Your task to perform on an android device: delete location history Image 0: 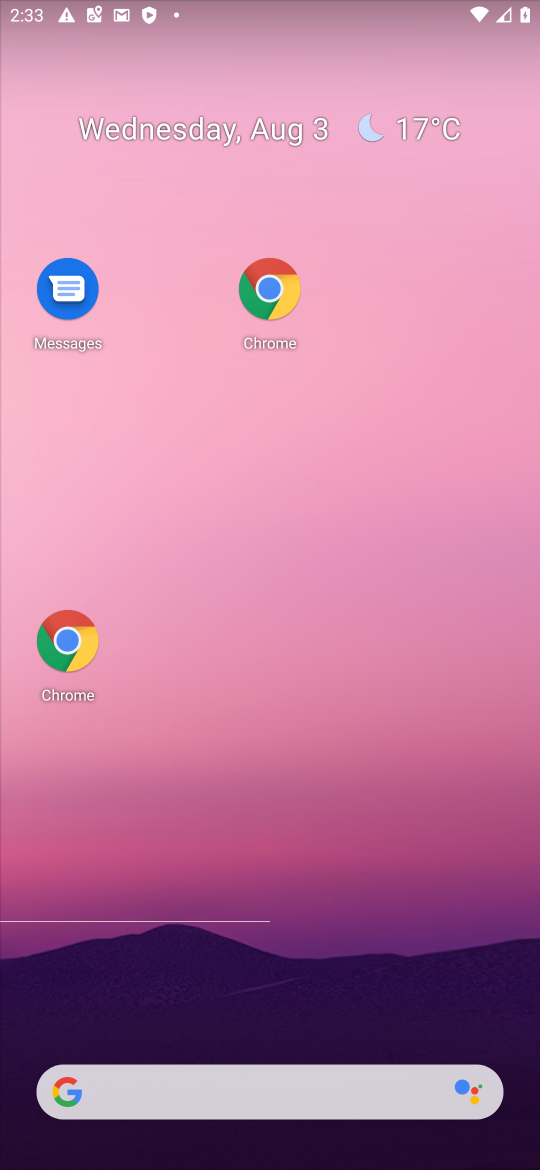
Step 0: drag from (374, 991) to (274, 153)
Your task to perform on an android device: delete location history Image 1: 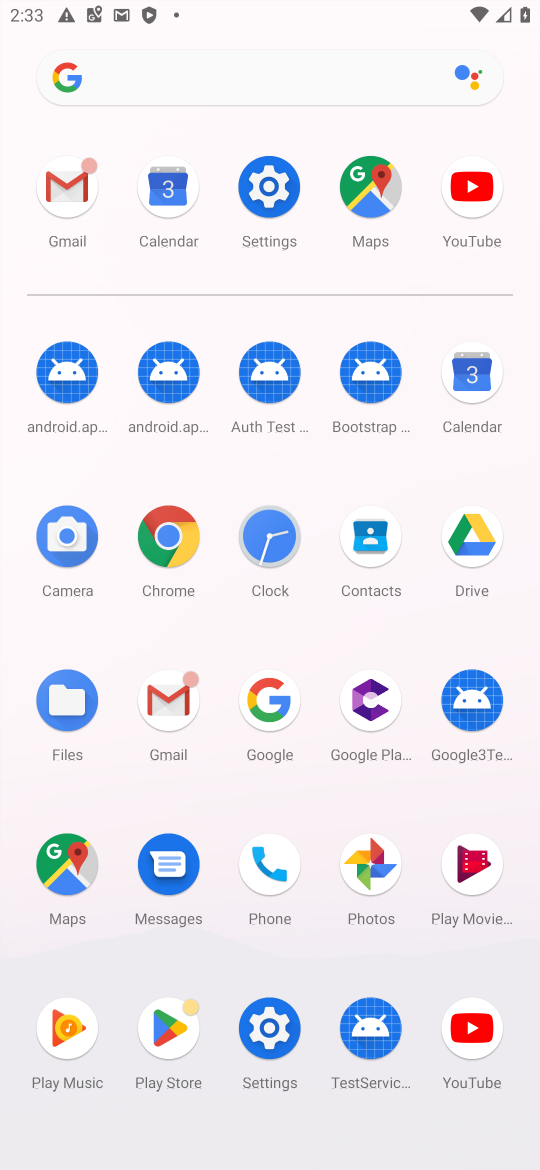
Step 1: click (263, 1008)
Your task to perform on an android device: delete location history Image 2: 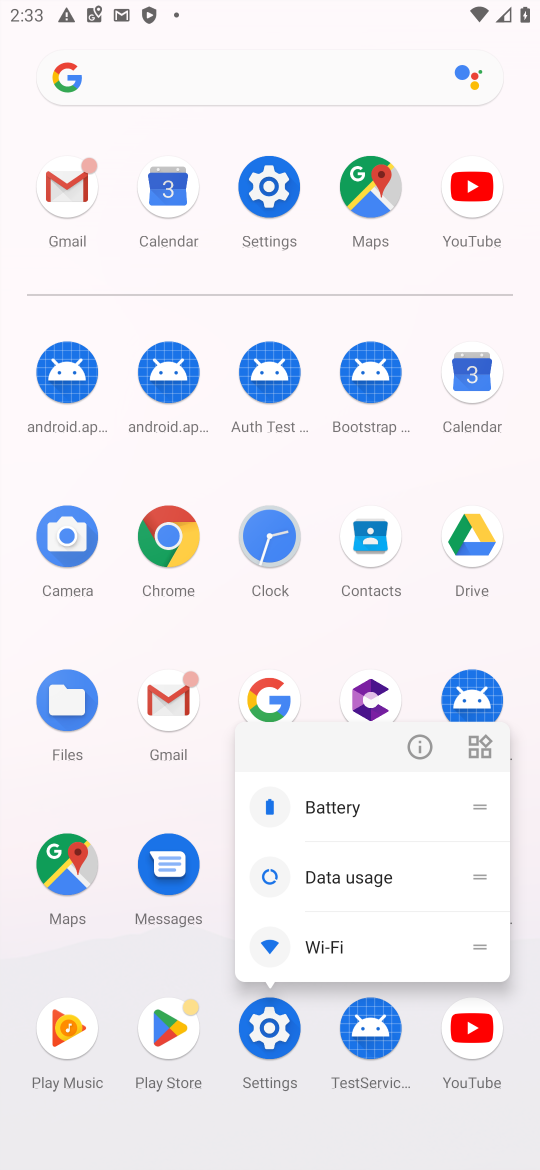
Step 2: click (271, 1029)
Your task to perform on an android device: delete location history Image 3: 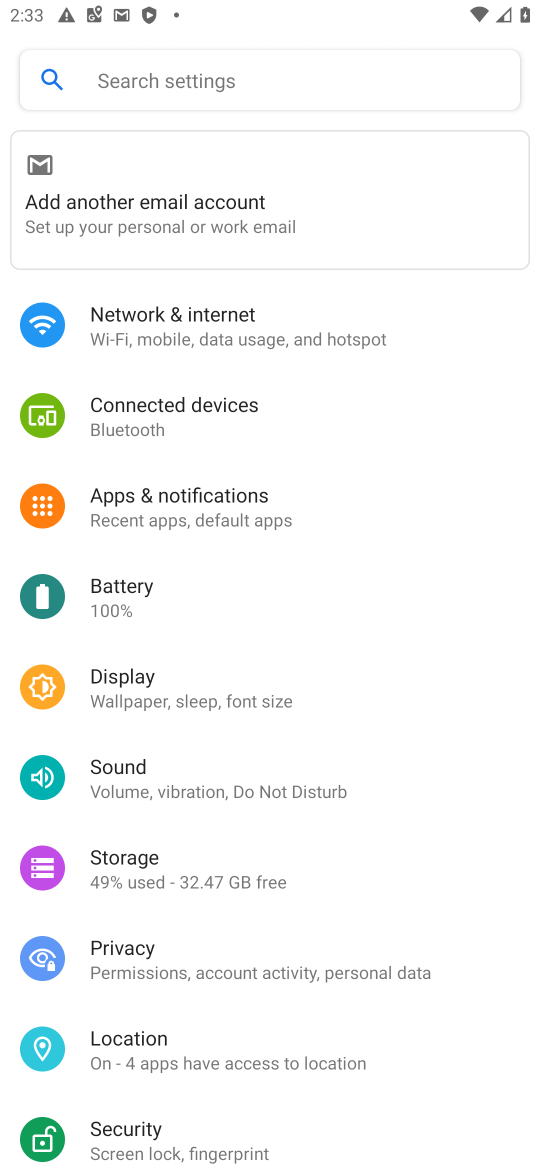
Step 3: click (271, 1029)
Your task to perform on an android device: delete location history Image 4: 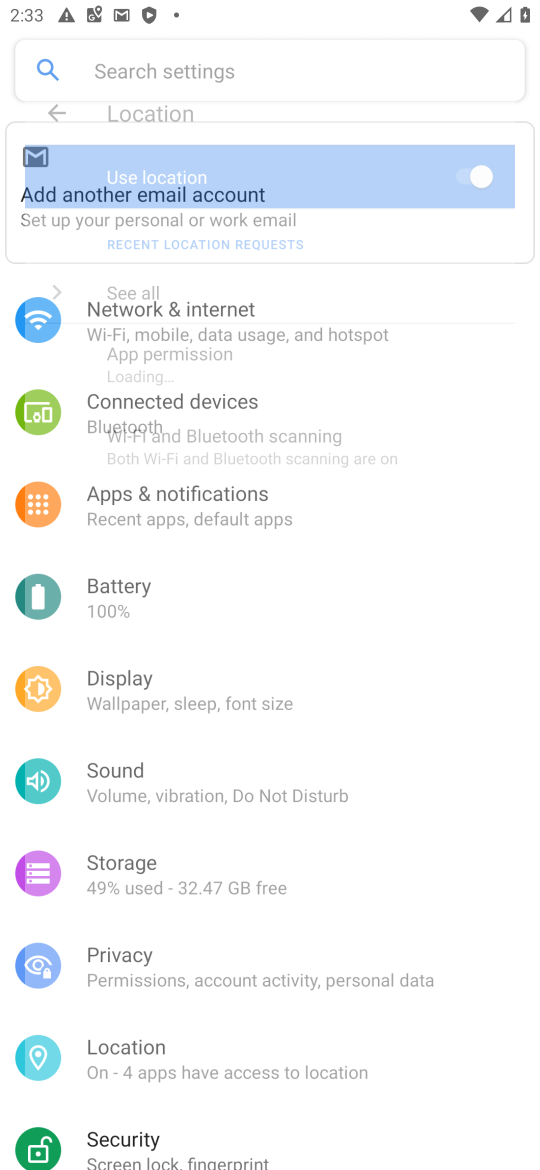
Step 4: click (271, 1029)
Your task to perform on an android device: delete location history Image 5: 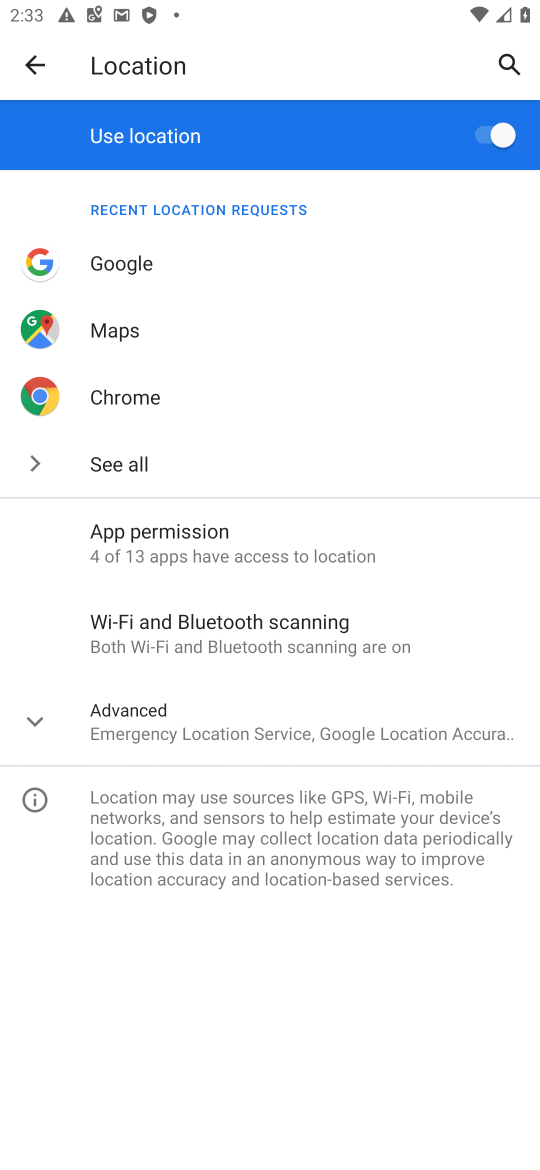
Step 5: click (292, 746)
Your task to perform on an android device: delete location history Image 6: 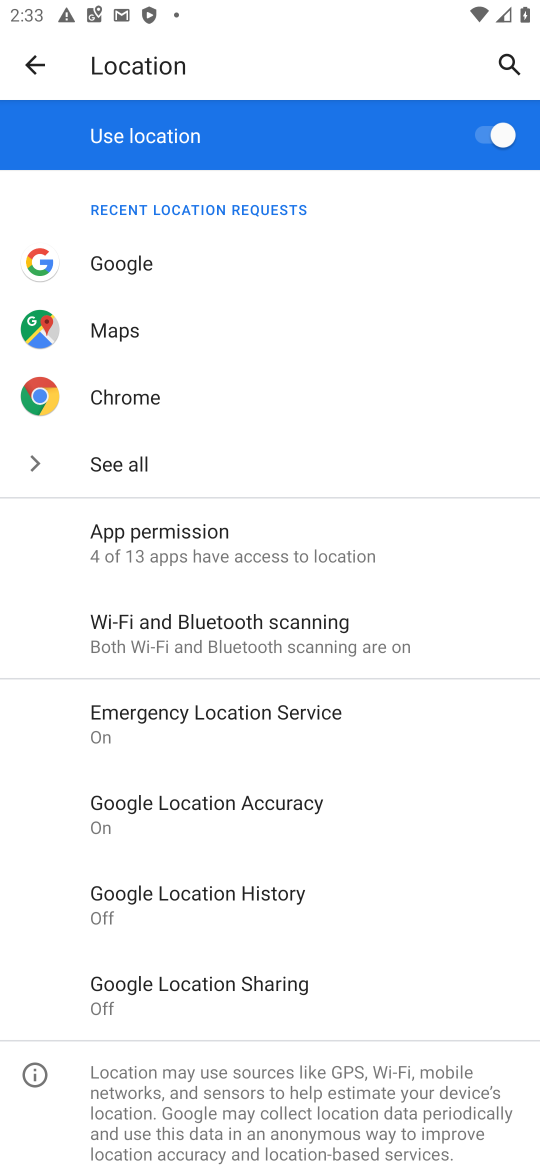
Step 6: click (256, 897)
Your task to perform on an android device: delete location history Image 7: 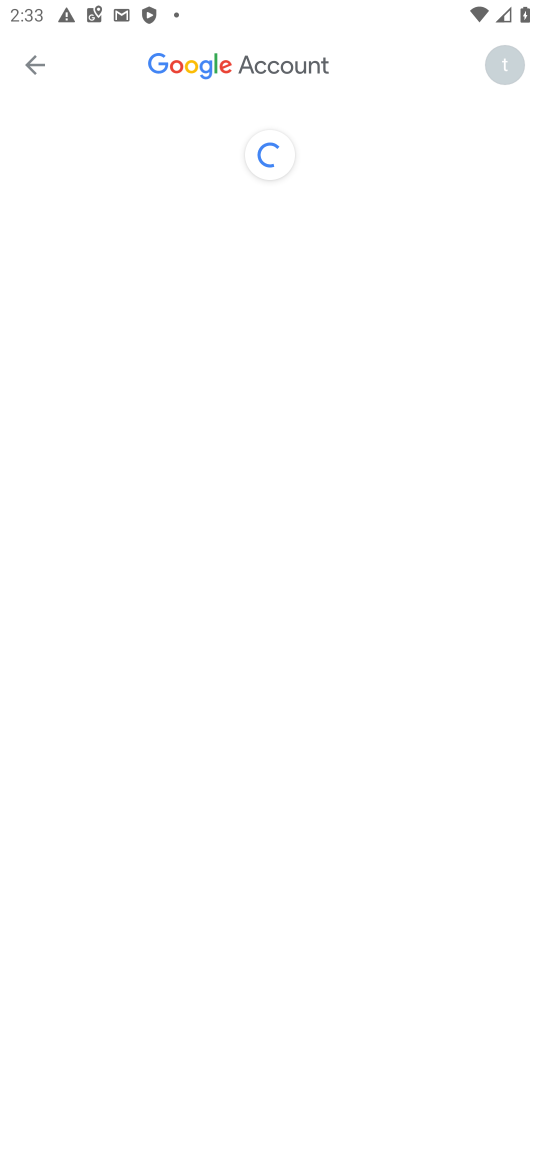
Step 7: task complete